Your task to perform on an android device: turn on the 12-hour format for clock Image 0: 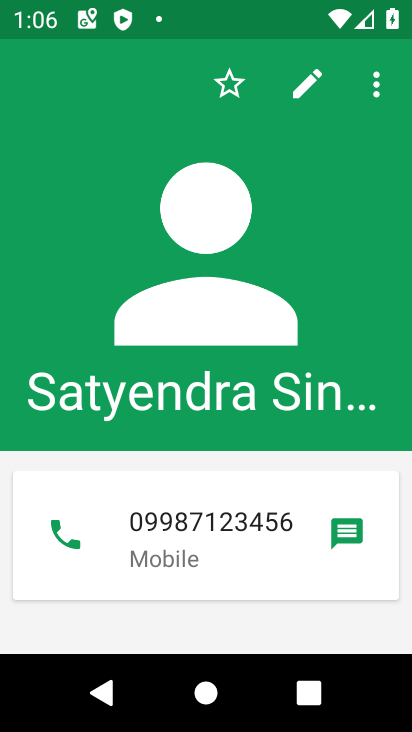
Step 0: press home button
Your task to perform on an android device: turn on the 12-hour format for clock Image 1: 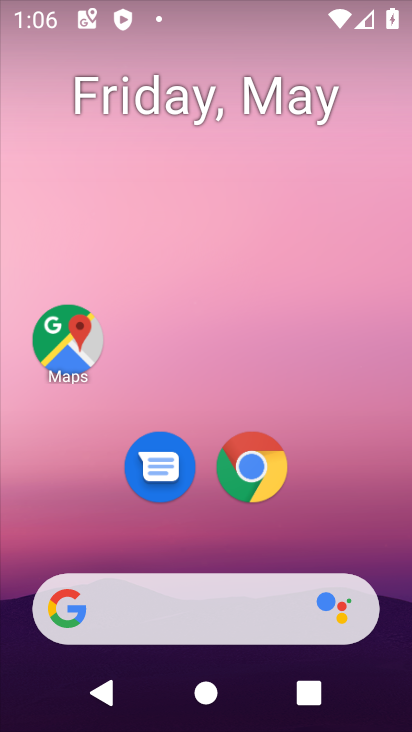
Step 1: drag from (326, 524) to (235, 171)
Your task to perform on an android device: turn on the 12-hour format for clock Image 2: 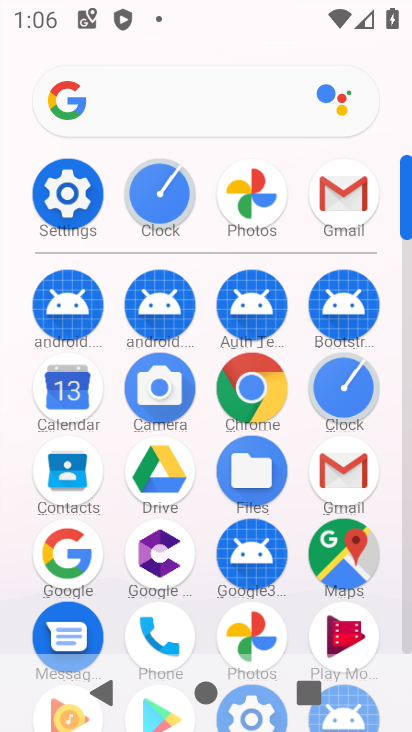
Step 2: click (343, 382)
Your task to perform on an android device: turn on the 12-hour format for clock Image 3: 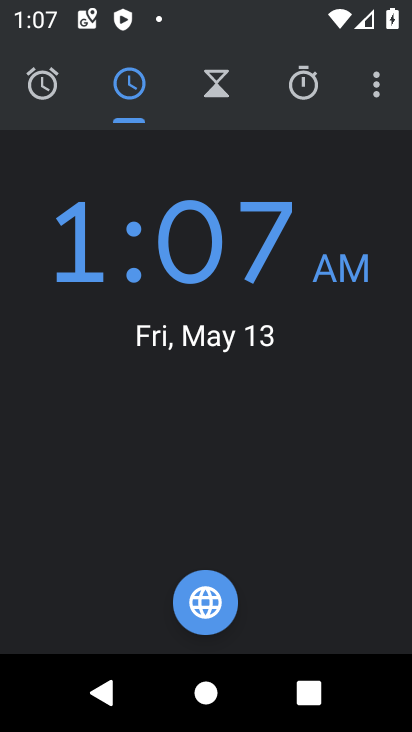
Step 3: click (375, 84)
Your task to perform on an android device: turn on the 12-hour format for clock Image 4: 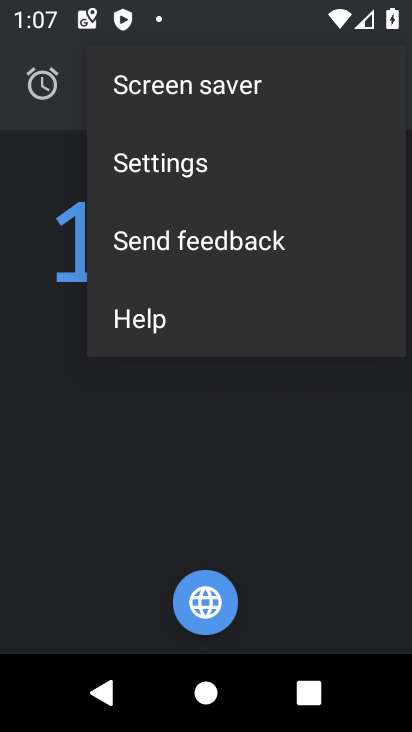
Step 4: click (164, 163)
Your task to perform on an android device: turn on the 12-hour format for clock Image 5: 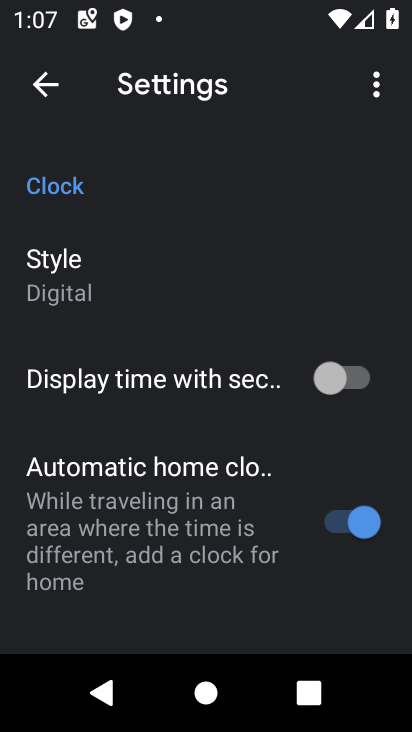
Step 5: drag from (205, 572) to (250, 239)
Your task to perform on an android device: turn on the 12-hour format for clock Image 6: 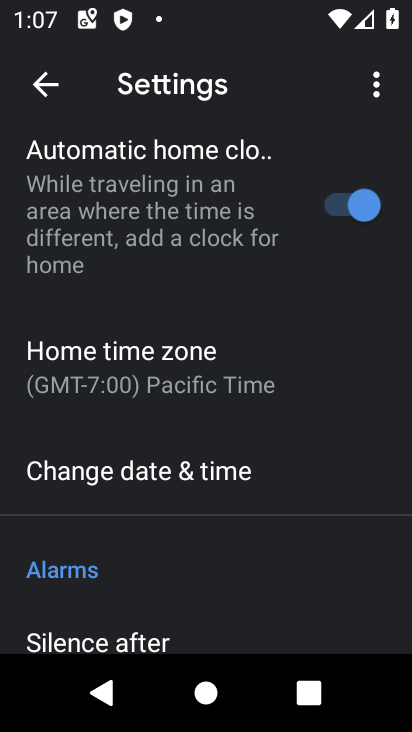
Step 6: click (210, 469)
Your task to perform on an android device: turn on the 12-hour format for clock Image 7: 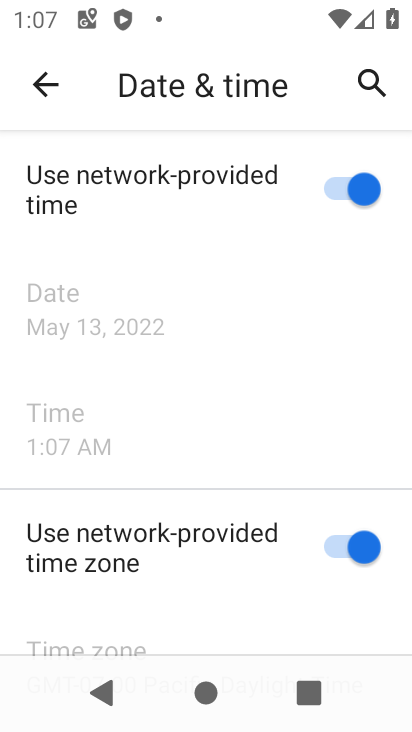
Step 7: task complete